Your task to perform on an android device: Open Youtube and go to the subscriptions tab Image 0: 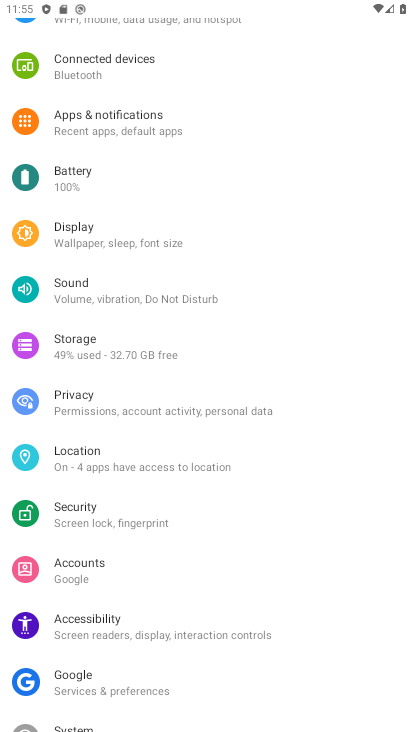
Step 0: press home button
Your task to perform on an android device: Open Youtube and go to the subscriptions tab Image 1: 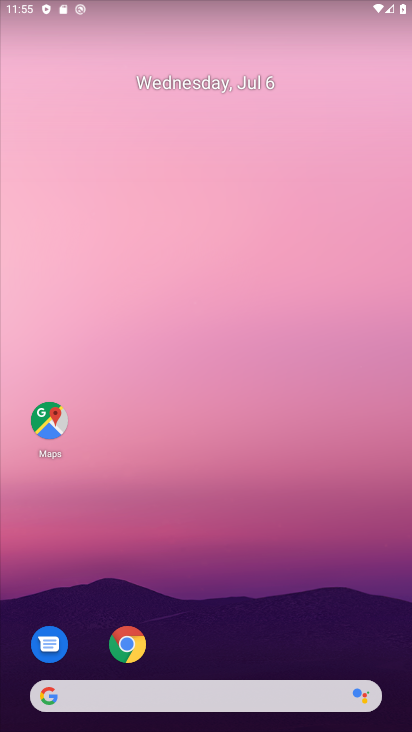
Step 1: drag from (202, 694) to (171, 234)
Your task to perform on an android device: Open Youtube and go to the subscriptions tab Image 2: 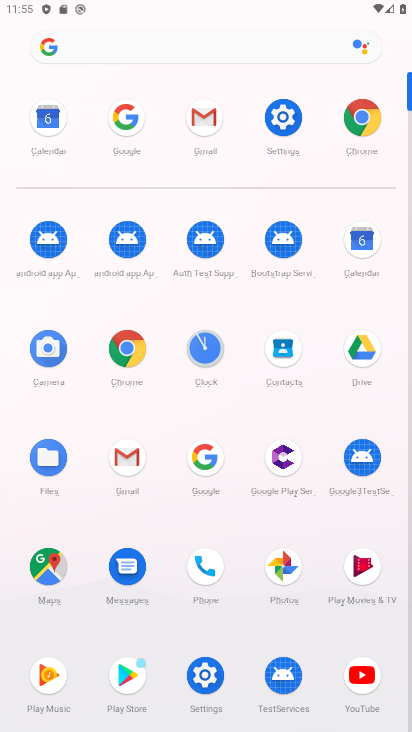
Step 2: click (347, 656)
Your task to perform on an android device: Open Youtube and go to the subscriptions tab Image 3: 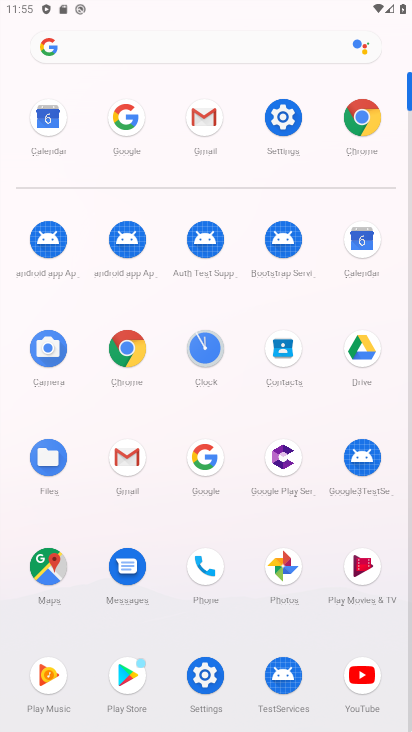
Step 3: click (347, 656)
Your task to perform on an android device: Open Youtube and go to the subscriptions tab Image 4: 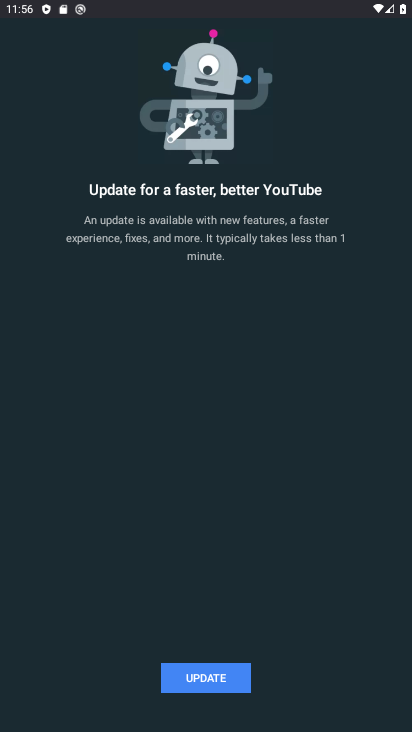
Step 4: click (224, 679)
Your task to perform on an android device: Open Youtube and go to the subscriptions tab Image 5: 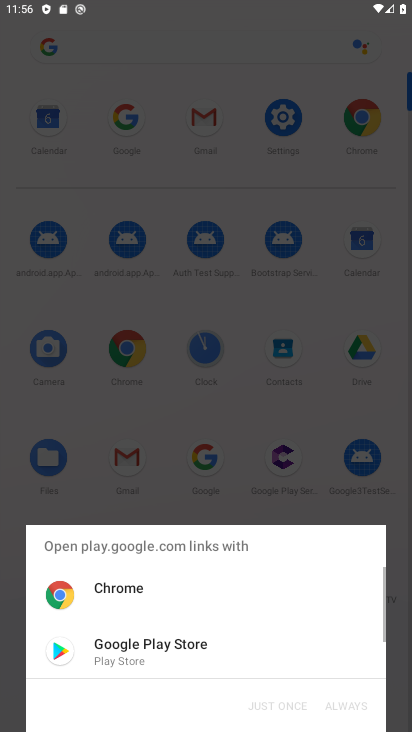
Step 5: click (253, 638)
Your task to perform on an android device: Open Youtube and go to the subscriptions tab Image 6: 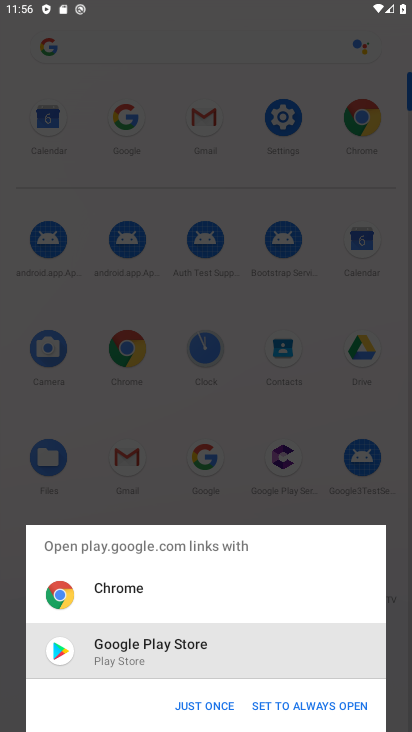
Step 6: click (225, 707)
Your task to perform on an android device: Open Youtube and go to the subscriptions tab Image 7: 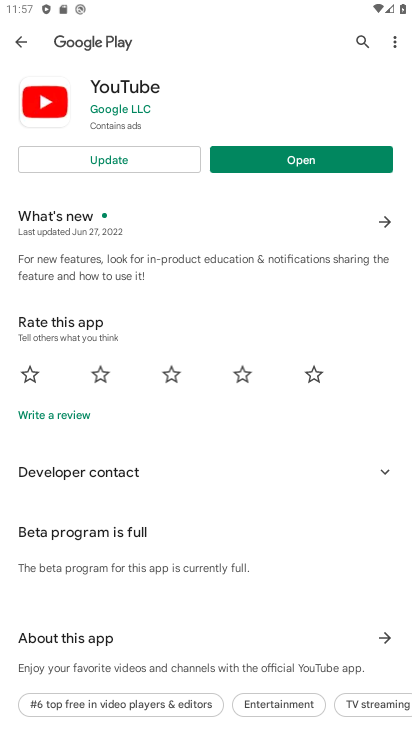
Step 7: click (157, 156)
Your task to perform on an android device: Open Youtube and go to the subscriptions tab Image 8: 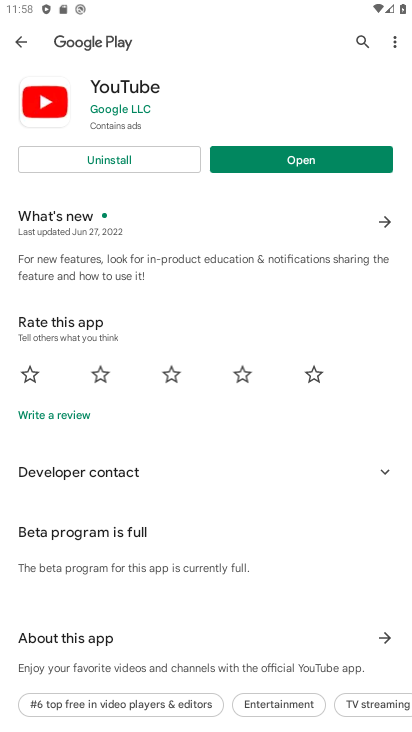
Step 8: click (283, 158)
Your task to perform on an android device: Open Youtube and go to the subscriptions tab Image 9: 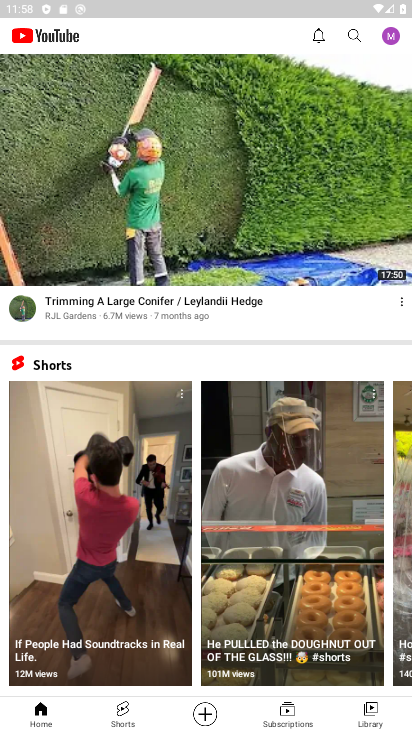
Step 9: click (289, 719)
Your task to perform on an android device: Open Youtube and go to the subscriptions tab Image 10: 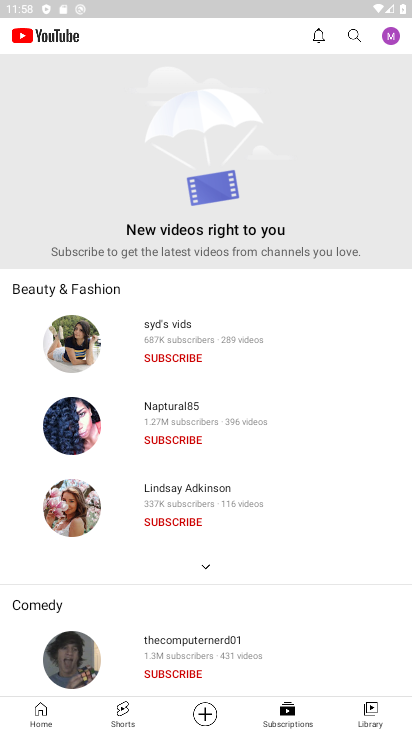
Step 10: task complete